Your task to perform on an android device: add a contact Image 0: 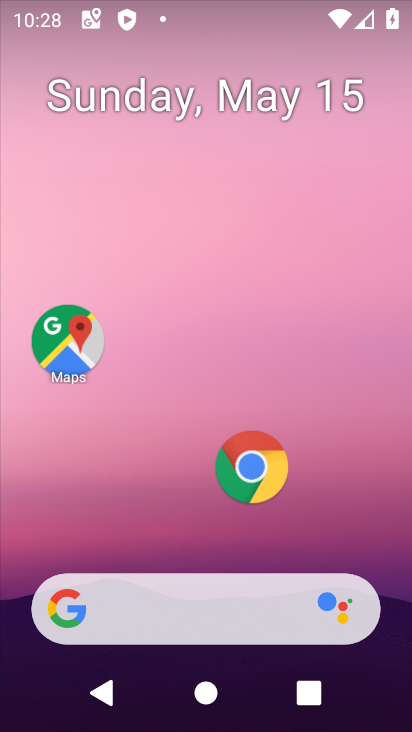
Step 0: drag from (178, 565) to (202, 101)
Your task to perform on an android device: add a contact Image 1: 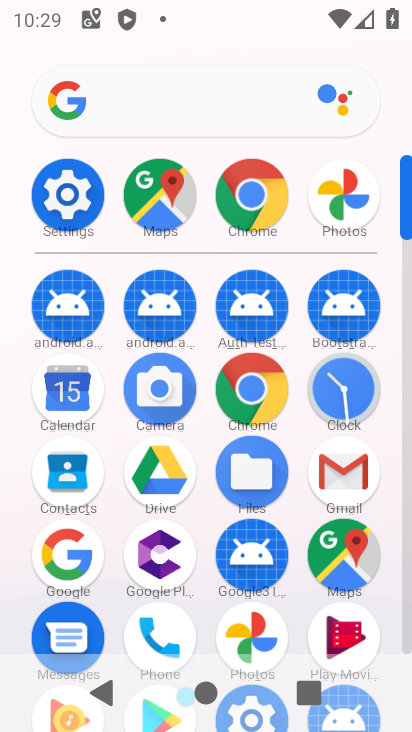
Step 1: click (79, 484)
Your task to perform on an android device: add a contact Image 2: 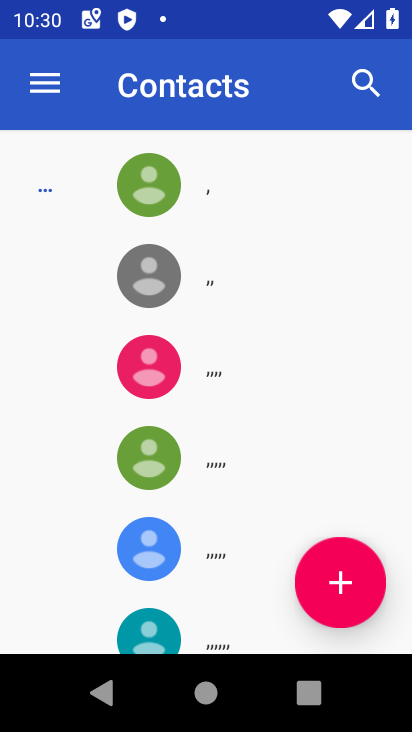
Step 2: drag from (246, 584) to (295, 212)
Your task to perform on an android device: add a contact Image 3: 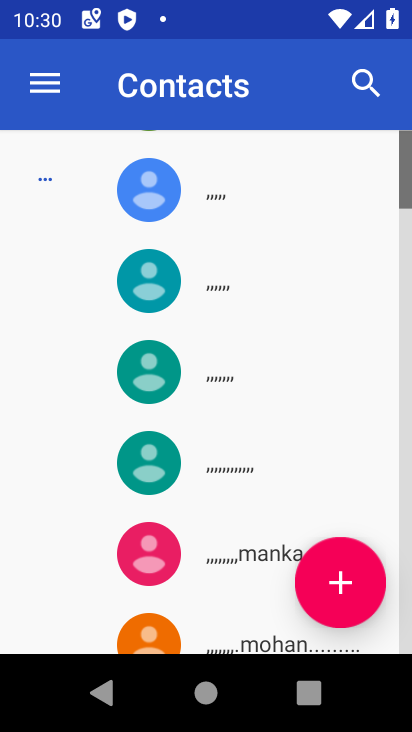
Step 3: click (338, 613)
Your task to perform on an android device: add a contact Image 4: 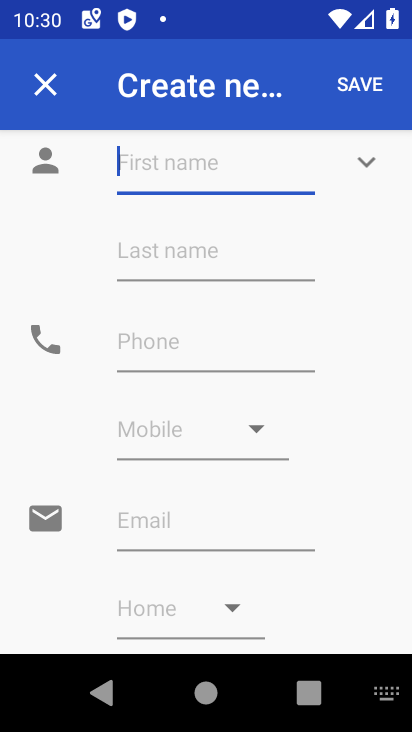
Step 4: type "mjkl"
Your task to perform on an android device: add a contact Image 5: 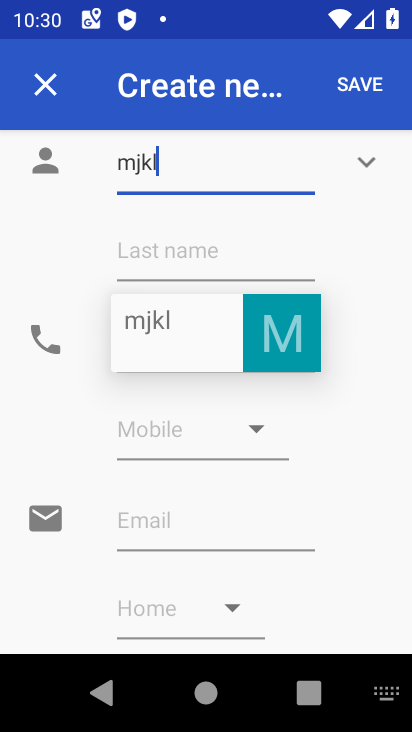
Step 5: click (355, 84)
Your task to perform on an android device: add a contact Image 6: 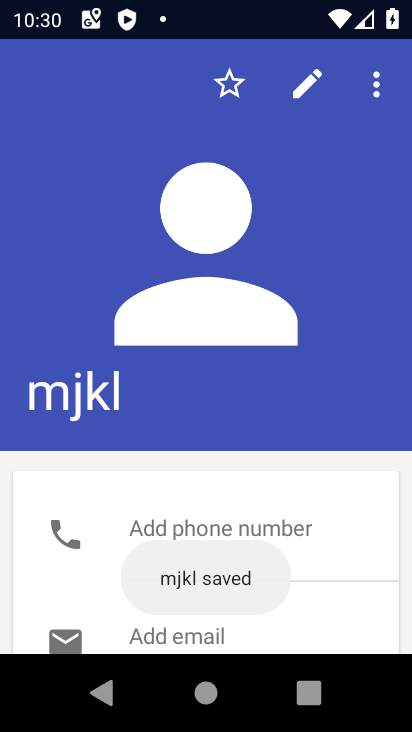
Step 6: task complete